Your task to perform on an android device: Add "panasonic triple a" to the cart on costco.com Image 0: 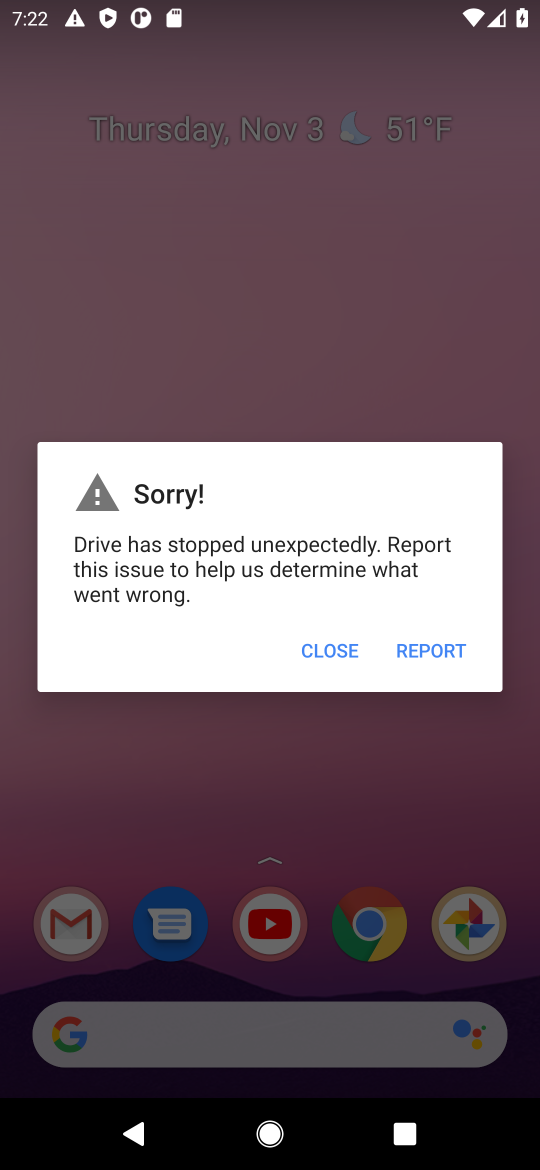
Step 0: press home button
Your task to perform on an android device: Add "panasonic triple a" to the cart on costco.com Image 1: 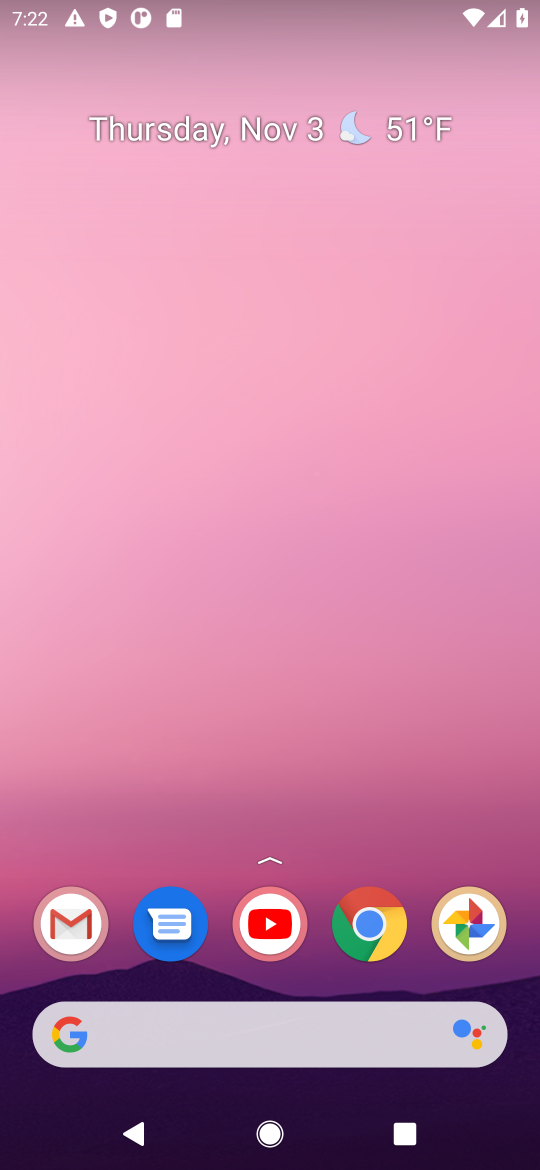
Step 1: drag from (317, 1020) to (297, 265)
Your task to perform on an android device: Add "panasonic triple a" to the cart on costco.com Image 2: 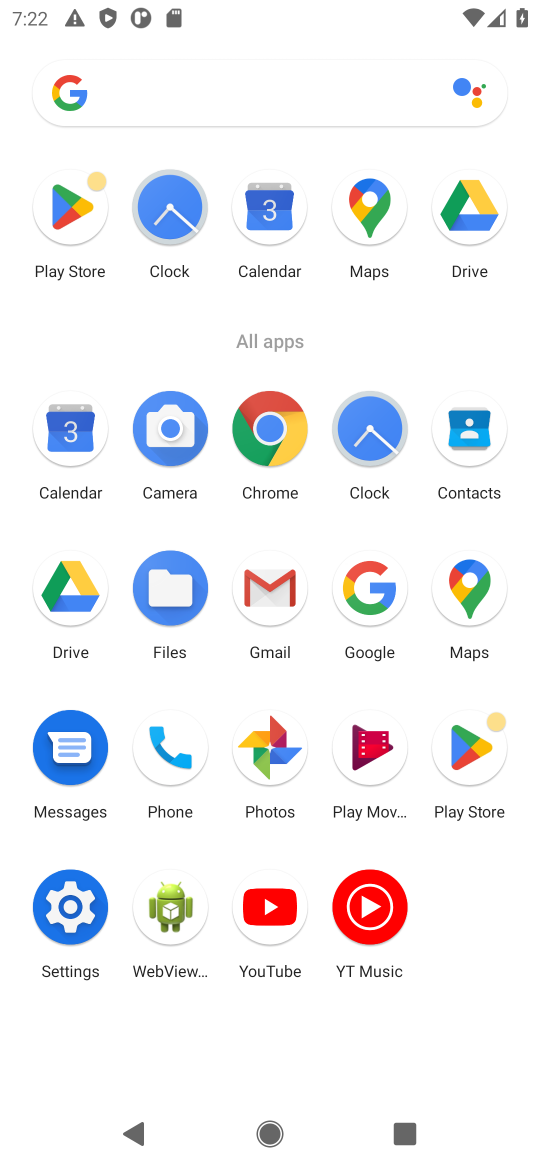
Step 2: click (373, 586)
Your task to perform on an android device: Add "panasonic triple a" to the cart on costco.com Image 3: 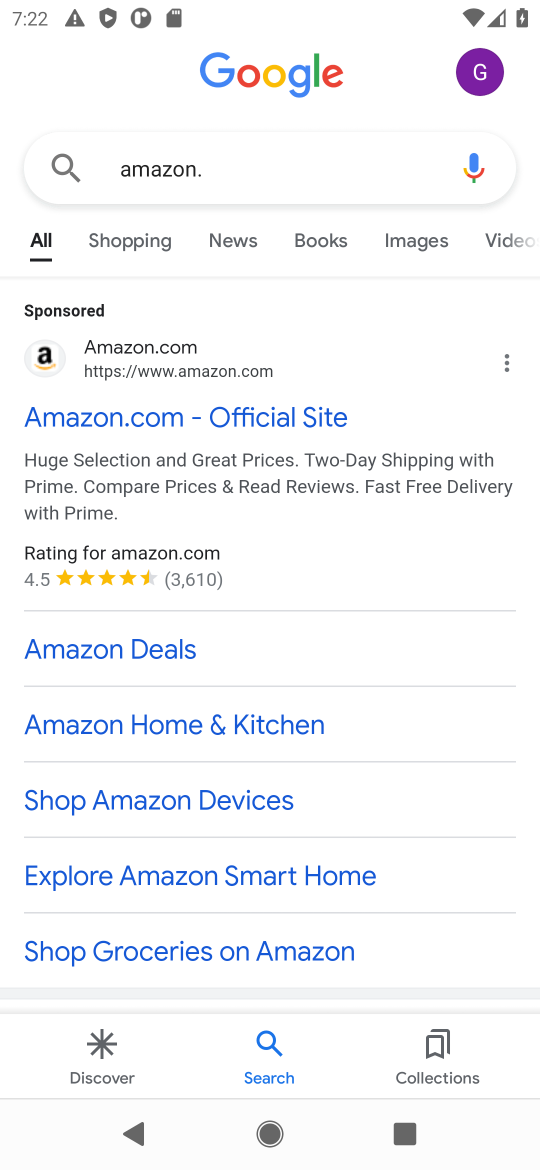
Step 3: click (304, 167)
Your task to perform on an android device: Add "panasonic triple a" to the cart on costco.com Image 4: 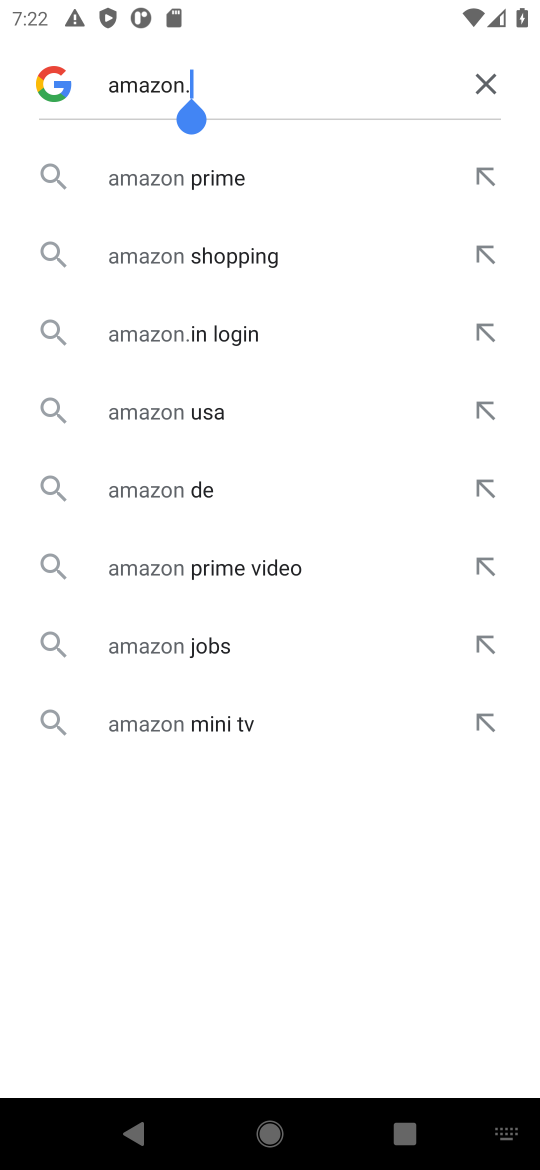
Step 4: click (482, 79)
Your task to perform on an android device: Add "panasonic triple a" to the cart on costco.com Image 5: 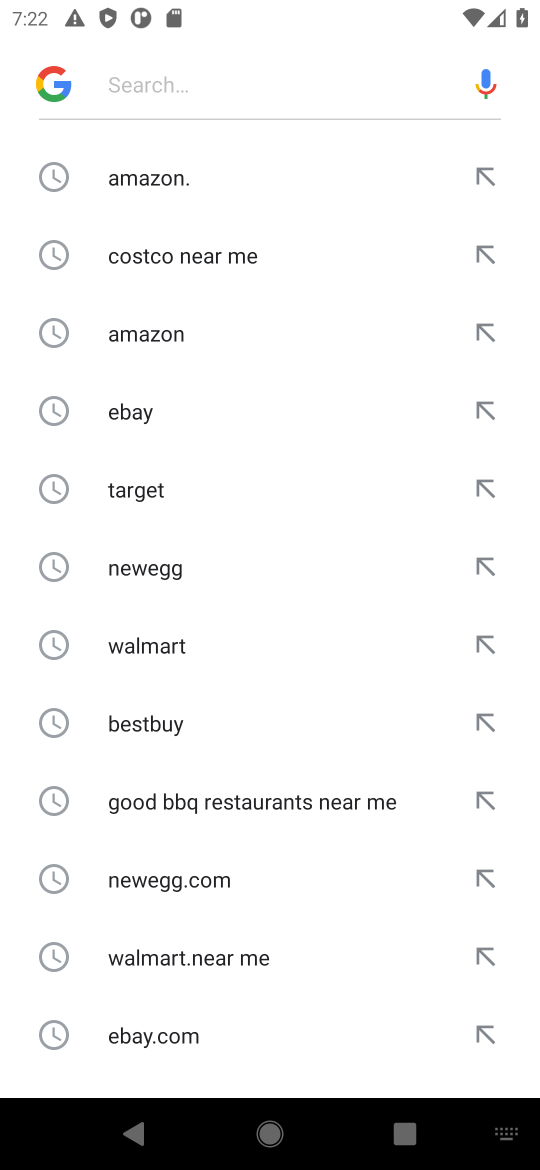
Step 5: click (262, 87)
Your task to perform on an android device: Add "panasonic triple a" to the cart on costco.com Image 6: 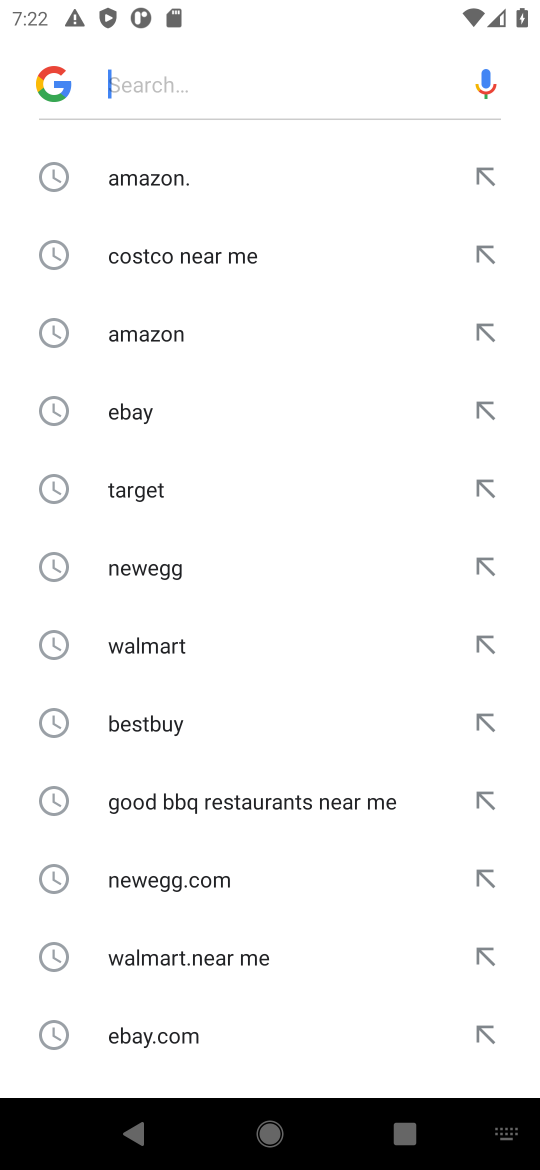
Step 6: type " costco.com "
Your task to perform on an android device: Add "panasonic triple a" to the cart on costco.com Image 7: 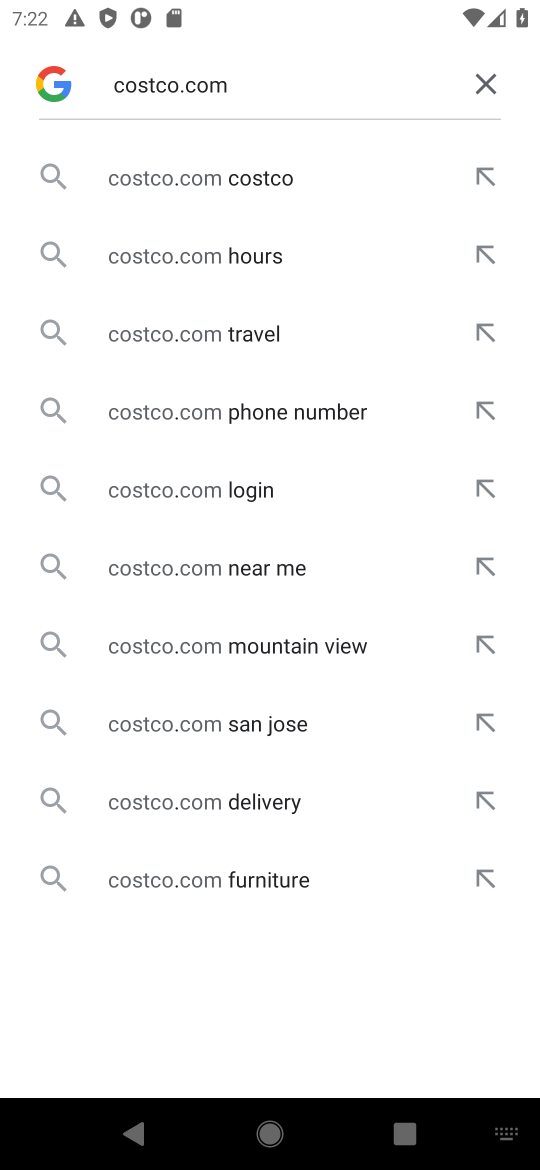
Step 7: click (242, 185)
Your task to perform on an android device: Add "panasonic triple a" to the cart on costco.com Image 8: 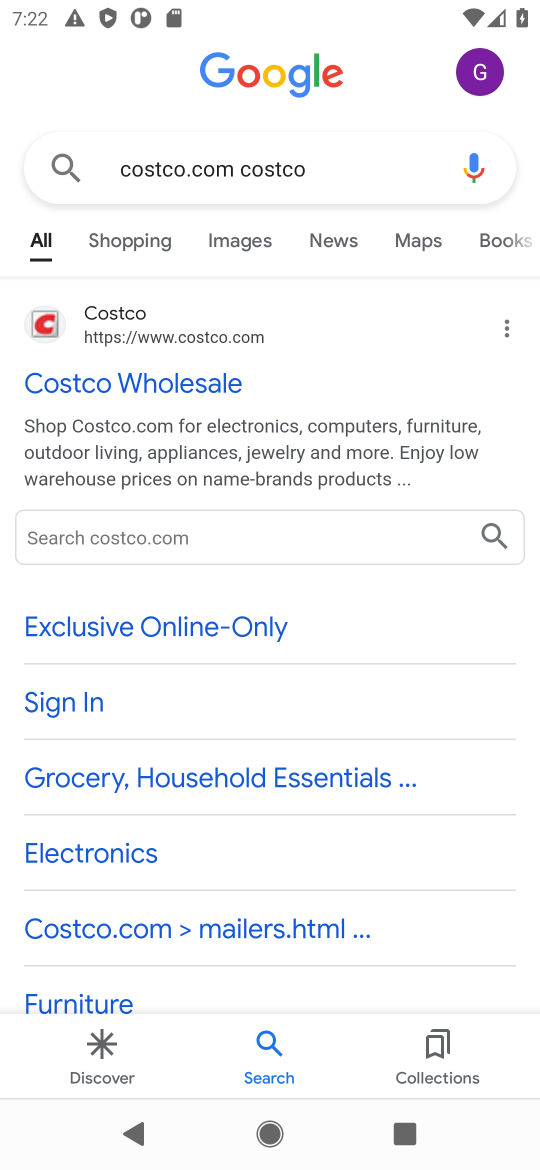
Step 8: click (45, 319)
Your task to perform on an android device: Add "panasonic triple a" to the cart on costco.com Image 9: 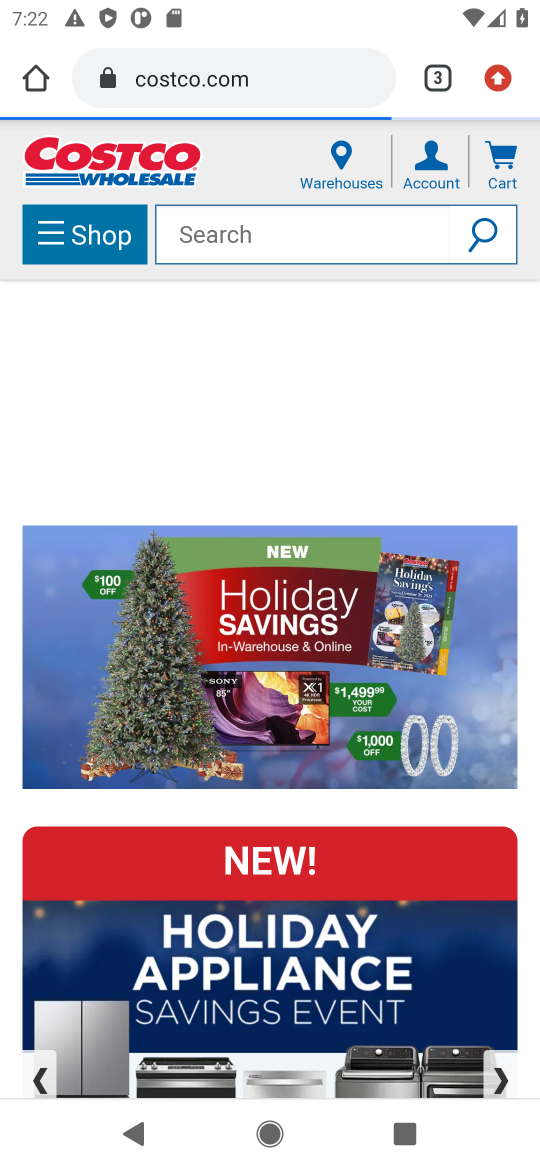
Step 9: click (246, 230)
Your task to perform on an android device: Add "panasonic triple a" to the cart on costco.com Image 10: 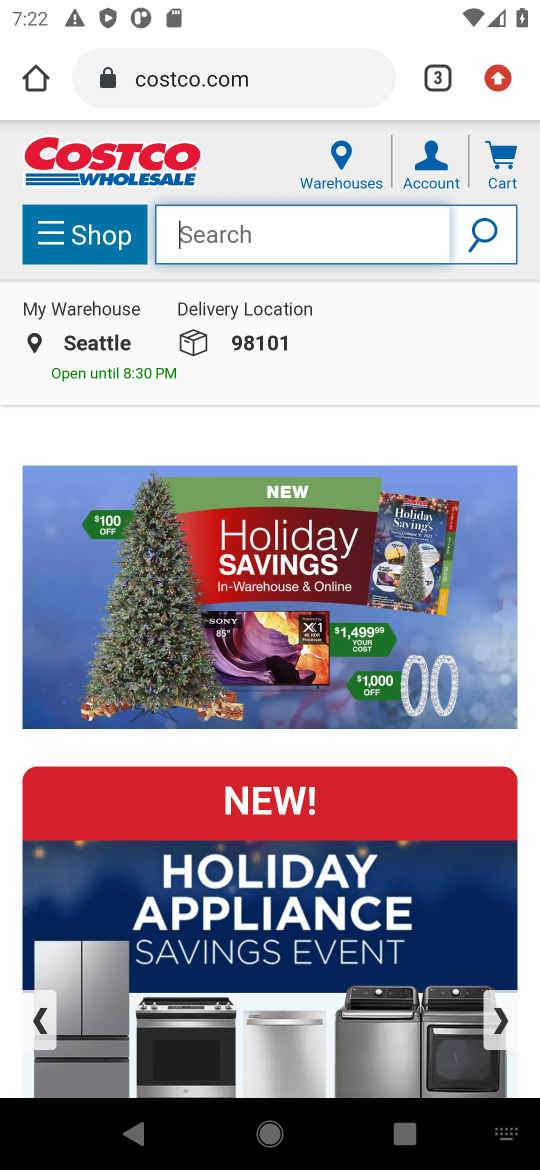
Step 10: click (211, 215)
Your task to perform on an android device: Add "panasonic triple a" to the cart on costco.com Image 11: 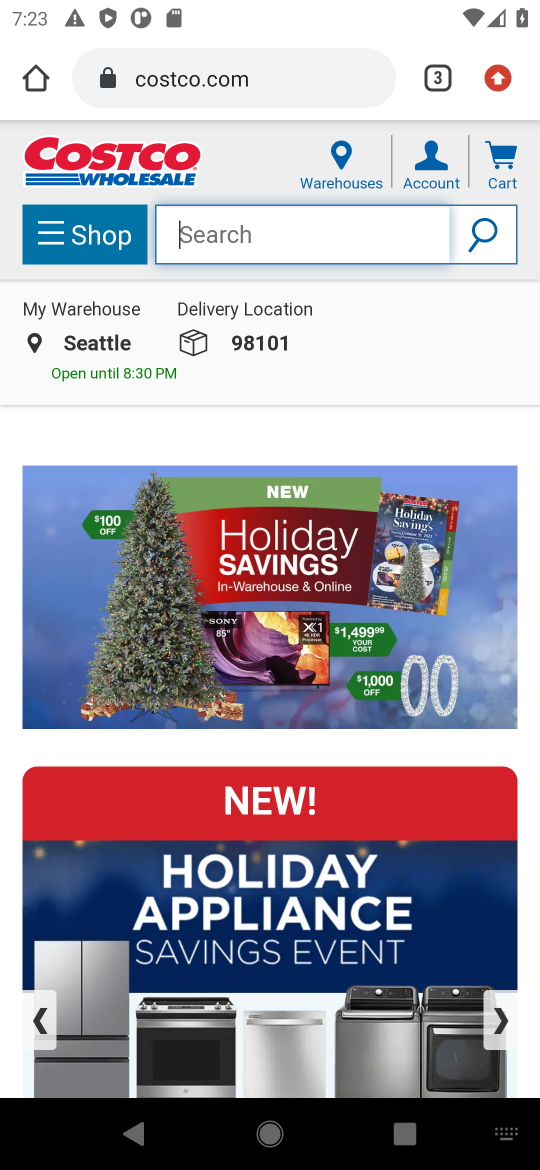
Step 11: type "panasonic triple "
Your task to perform on an android device: Add "panasonic triple a" to the cart on costco.com Image 12: 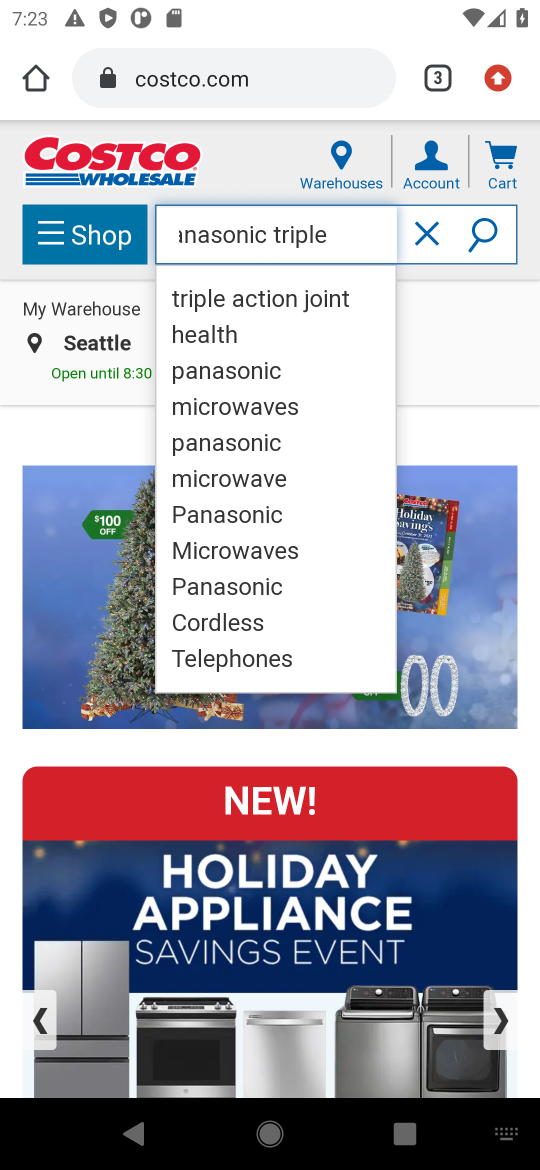
Step 12: click (494, 232)
Your task to perform on an android device: Add "panasonic triple a" to the cart on costco.com Image 13: 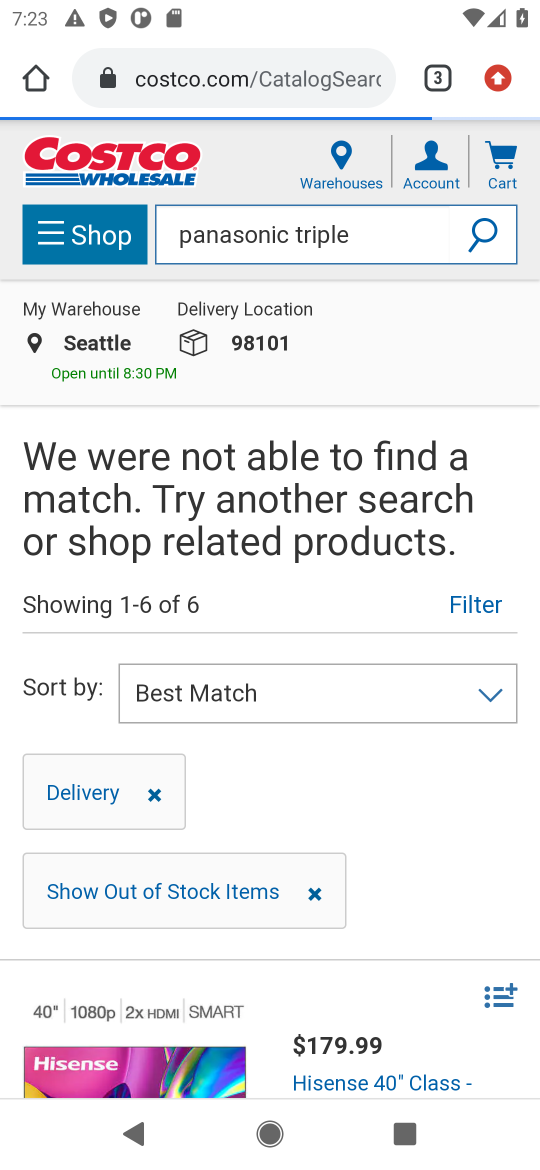
Step 13: task complete